Your task to perform on an android device: turn on notifications settings in the gmail app Image 0: 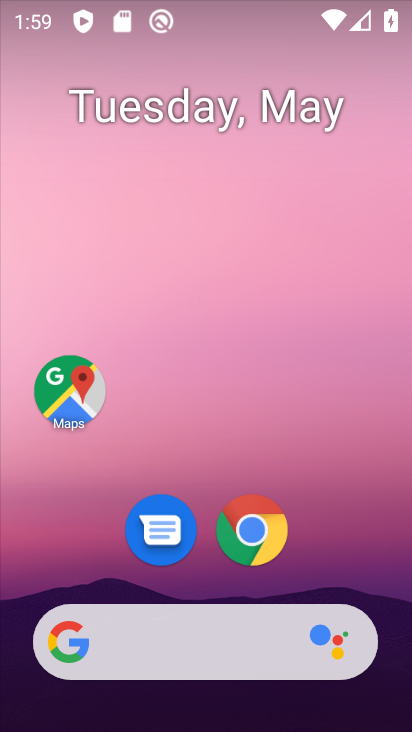
Step 0: drag from (45, 560) to (311, 135)
Your task to perform on an android device: turn on notifications settings in the gmail app Image 1: 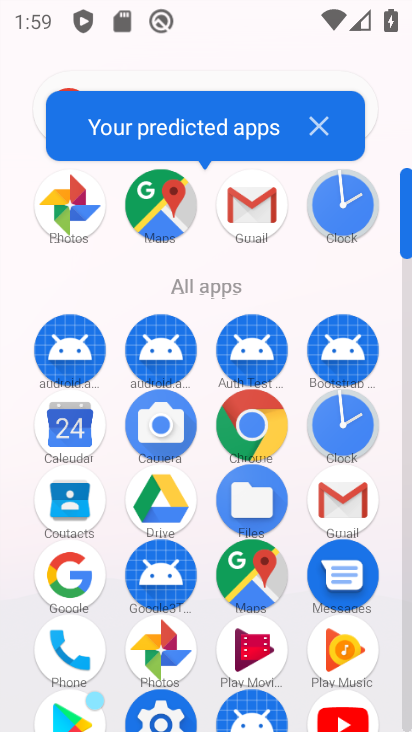
Step 1: click (160, 708)
Your task to perform on an android device: turn on notifications settings in the gmail app Image 2: 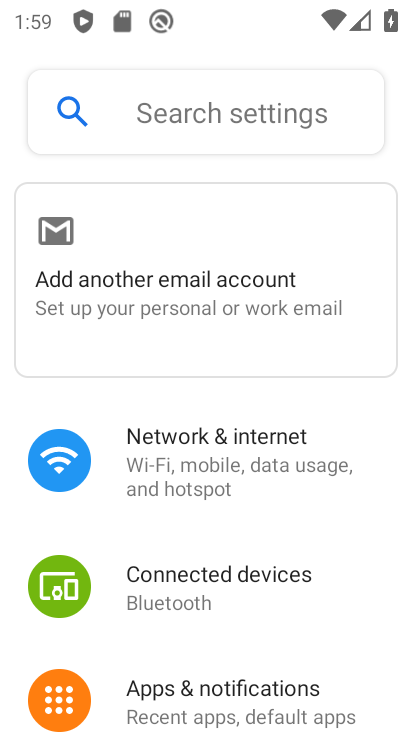
Step 2: click (197, 707)
Your task to perform on an android device: turn on notifications settings in the gmail app Image 3: 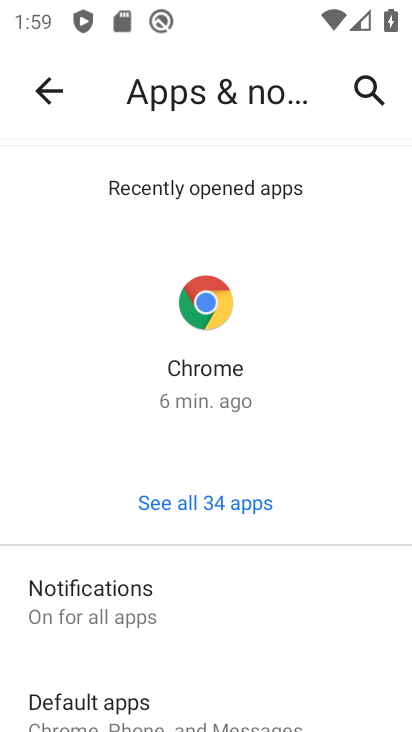
Step 3: click (195, 594)
Your task to perform on an android device: turn on notifications settings in the gmail app Image 4: 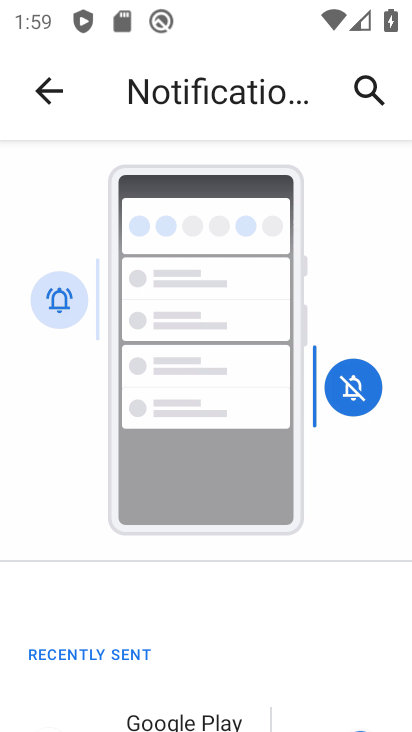
Step 4: task complete